Your task to perform on an android device: turn off location Image 0: 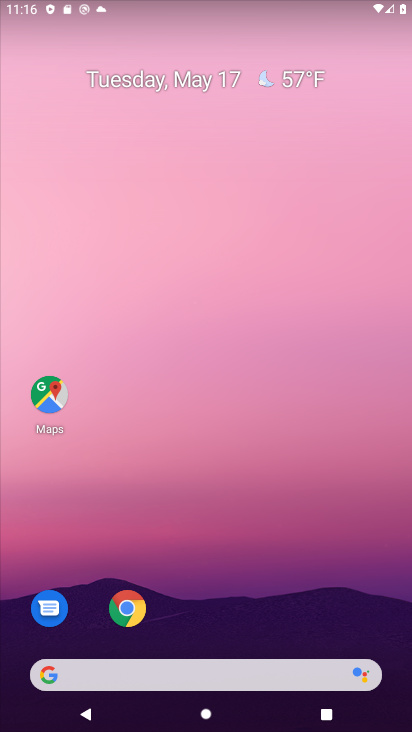
Step 0: drag from (234, 637) to (320, 55)
Your task to perform on an android device: turn off location Image 1: 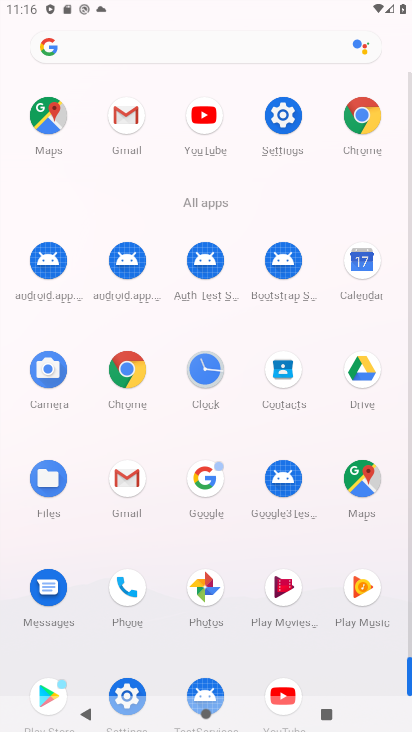
Step 1: click (289, 133)
Your task to perform on an android device: turn off location Image 2: 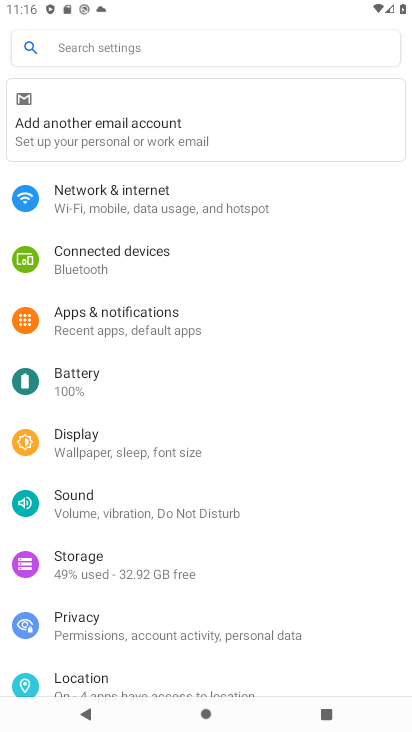
Step 2: drag from (122, 596) to (149, 405)
Your task to perform on an android device: turn off location Image 3: 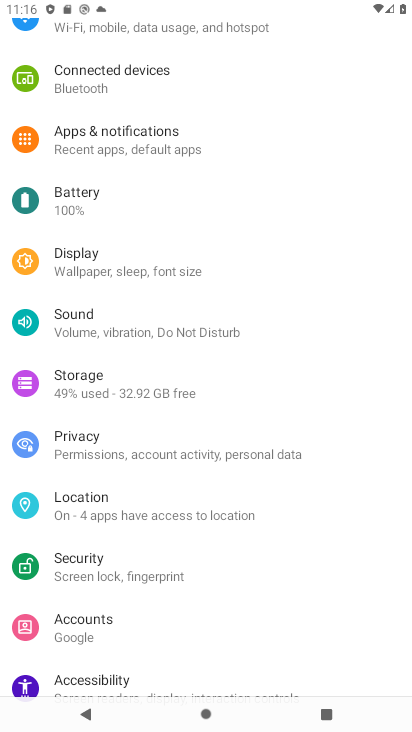
Step 3: click (128, 510)
Your task to perform on an android device: turn off location Image 4: 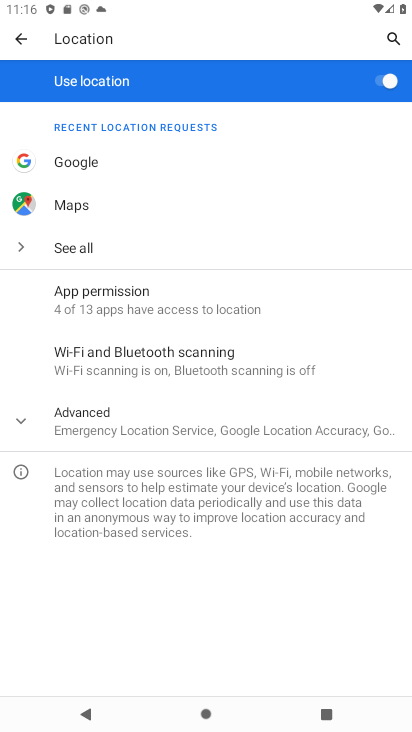
Step 4: click (375, 80)
Your task to perform on an android device: turn off location Image 5: 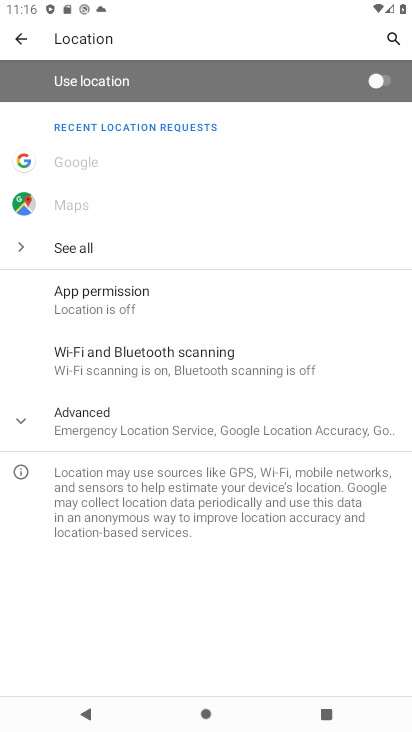
Step 5: task complete